Your task to perform on an android device: turn on priority inbox in the gmail app Image 0: 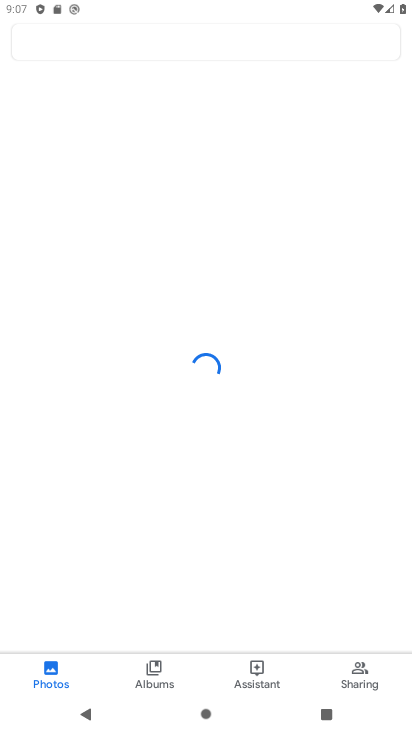
Step 0: press home button
Your task to perform on an android device: turn on priority inbox in the gmail app Image 1: 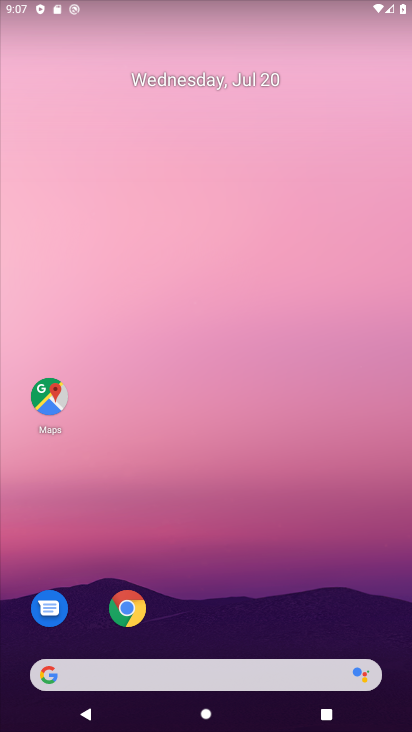
Step 1: drag from (323, 414) to (262, 155)
Your task to perform on an android device: turn on priority inbox in the gmail app Image 2: 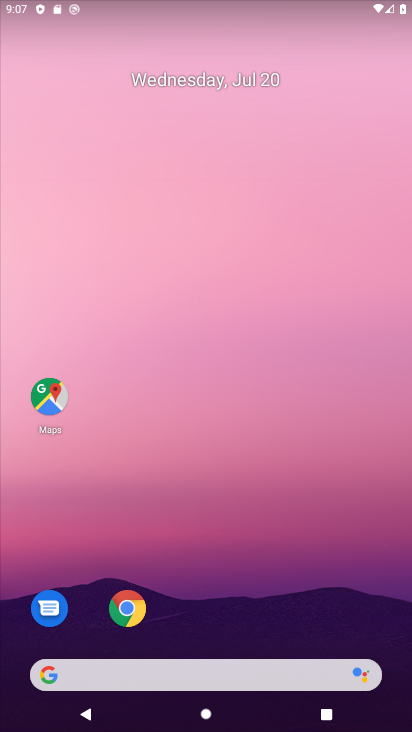
Step 2: drag from (339, 364) to (305, 146)
Your task to perform on an android device: turn on priority inbox in the gmail app Image 3: 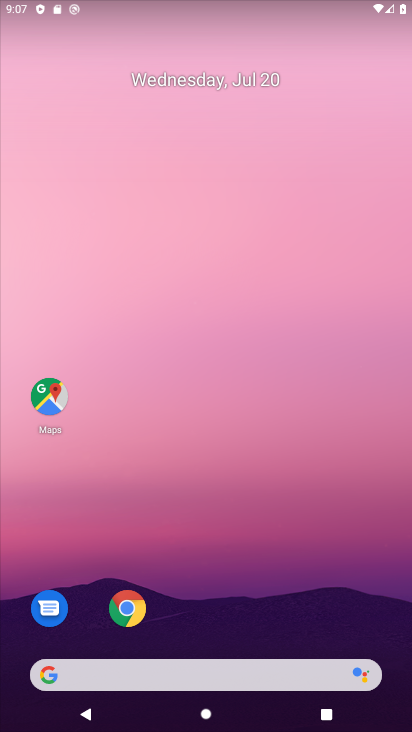
Step 3: drag from (312, 426) to (279, 223)
Your task to perform on an android device: turn on priority inbox in the gmail app Image 4: 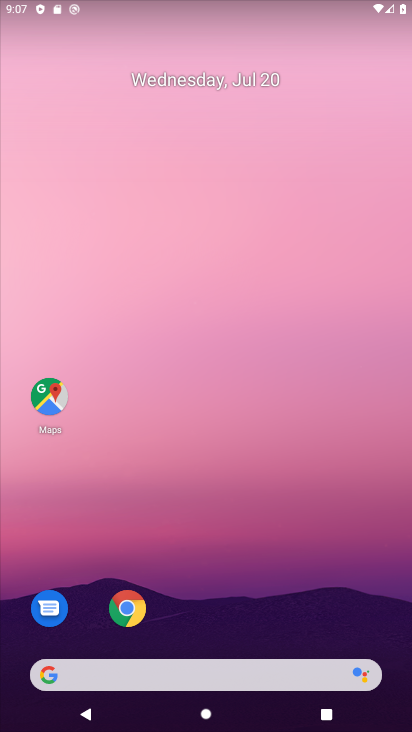
Step 4: drag from (323, 647) to (278, 129)
Your task to perform on an android device: turn on priority inbox in the gmail app Image 5: 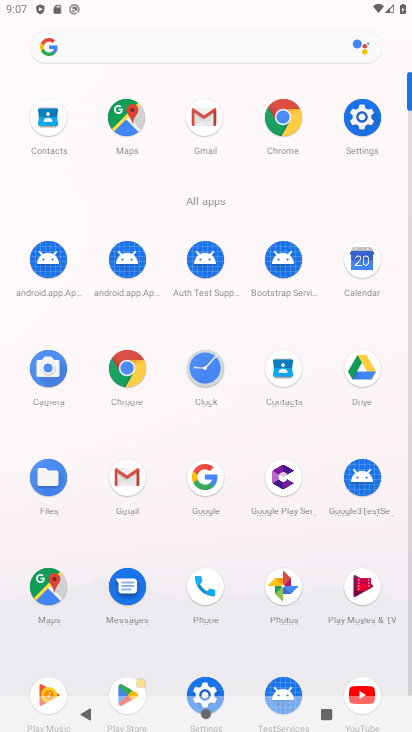
Step 5: click (202, 114)
Your task to perform on an android device: turn on priority inbox in the gmail app Image 6: 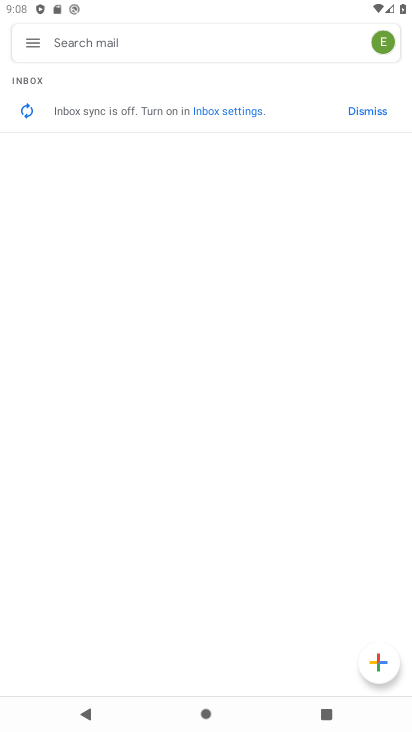
Step 6: click (39, 46)
Your task to perform on an android device: turn on priority inbox in the gmail app Image 7: 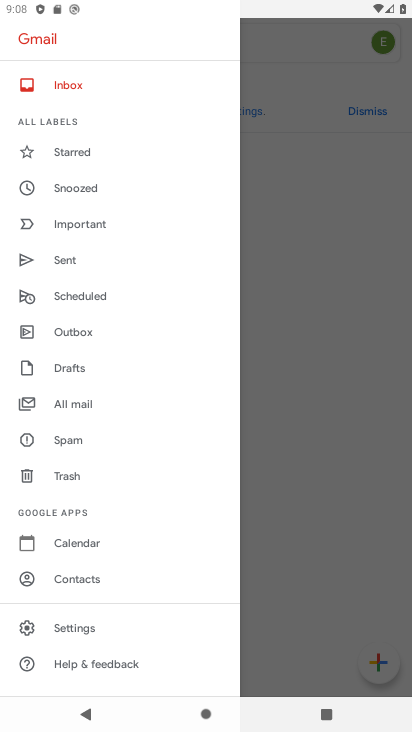
Step 7: click (78, 633)
Your task to perform on an android device: turn on priority inbox in the gmail app Image 8: 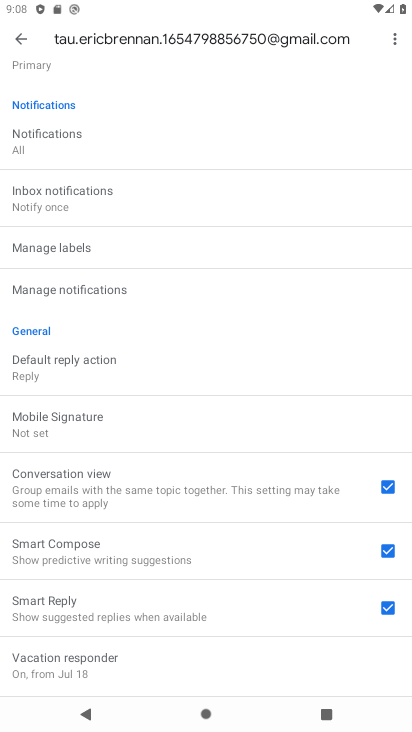
Step 8: drag from (152, 597) to (107, 525)
Your task to perform on an android device: turn on priority inbox in the gmail app Image 9: 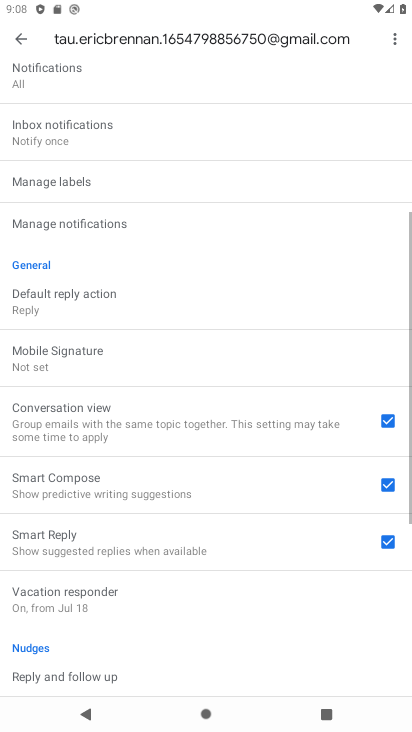
Step 9: drag from (119, 250) to (56, 691)
Your task to perform on an android device: turn on priority inbox in the gmail app Image 10: 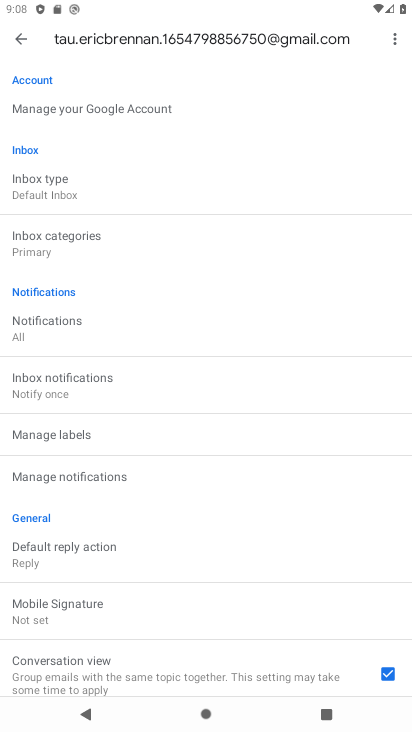
Step 10: click (94, 182)
Your task to perform on an android device: turn on priority inbox in the gmail app Image 11: 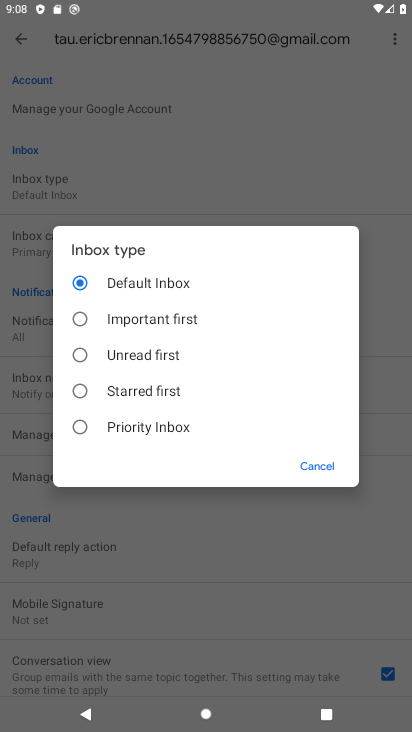
Step 11: click (110, 436)
Your task to perform on an android device: turn on priority inbox in the gmail app Image 12: 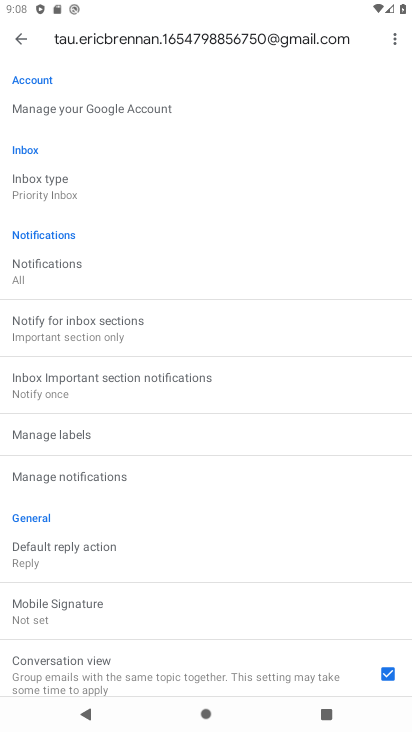
Step 12: task complete